Your task to perform on an android device: turn off location history Image 0: 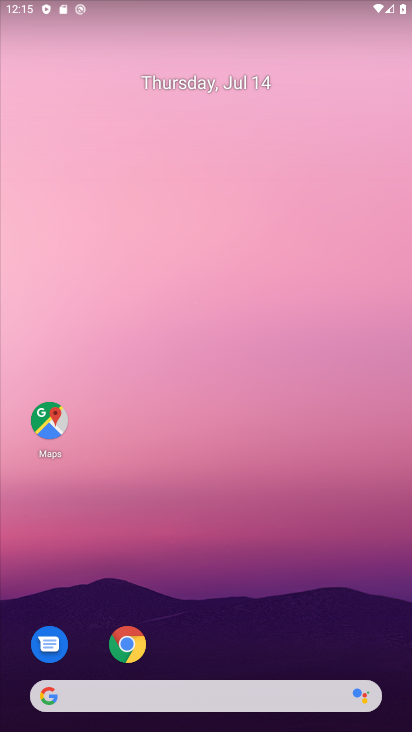
Step 0: drag from (222, 680) to (194, 314)
Your task to perform on an android device: turn off location history Image 1: 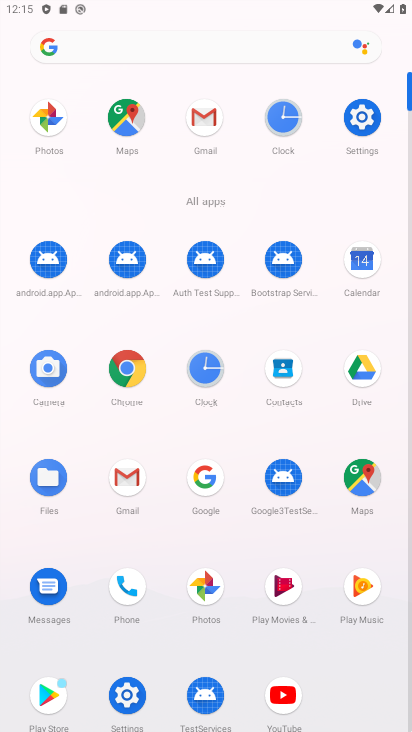
Step 1: click (353, 139)
Your task to perform on an android device: turn off location history Image 2: 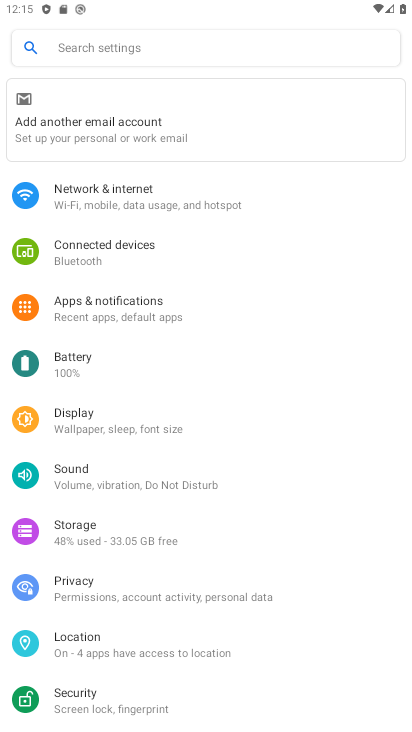
Step 2: click (121, 644)
Your task to perform on an android device: turn off location history Image 3: 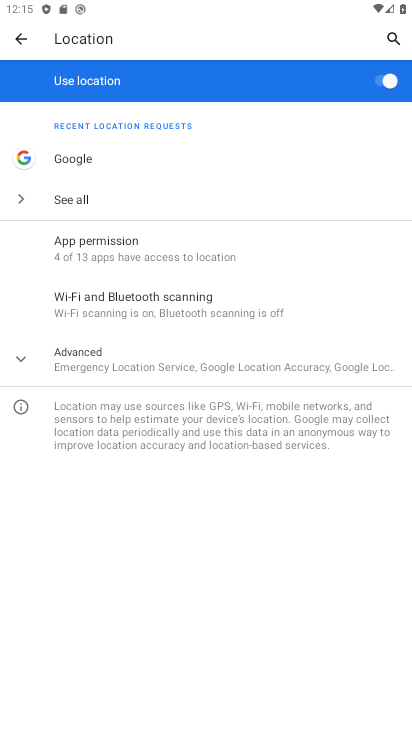
Step 3: click (81, 369)
Your task to perform on an android device: turn off location history Image 4: 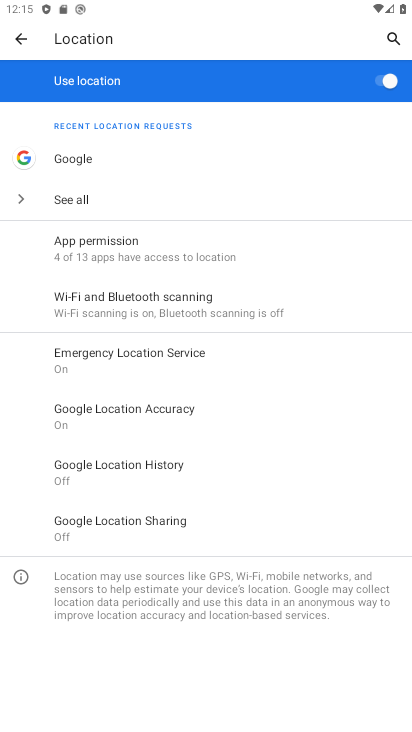
Step 4: click (139, 470)
Your task to perform on an android device: turn off location history Image 5: 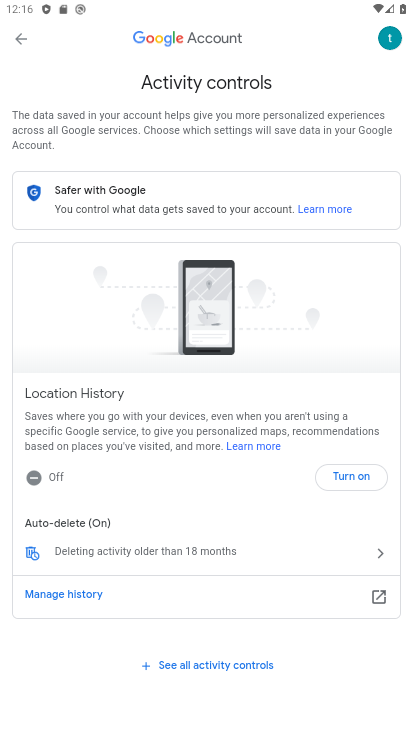
Step 5: drag from (113, 520) to (100, 314)
Your task to perform on an android device: turn off location history Image 6: 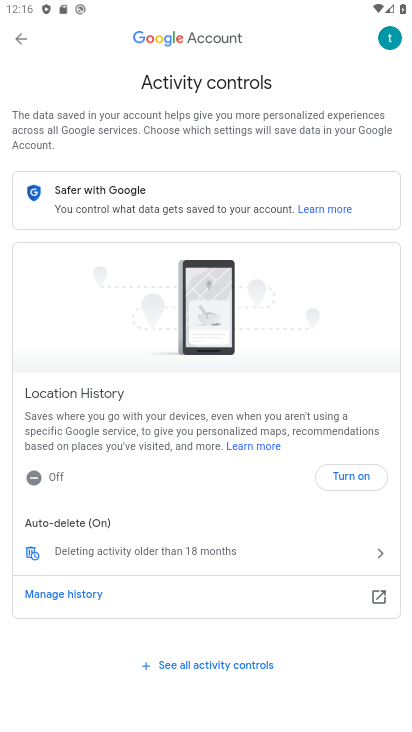
Step 6: drag from (139, 564) to (116, 385)
Your task to perform on an android device: turn off location history Image 7: 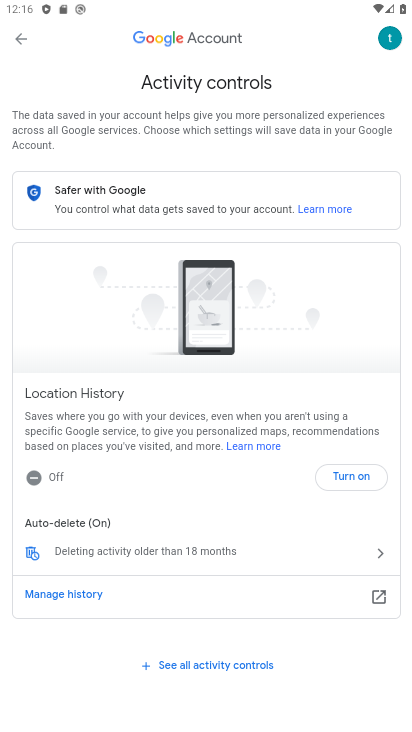
Step 7: click (62, 480)
Your task to perform on an android device: turn off location history Image 8: 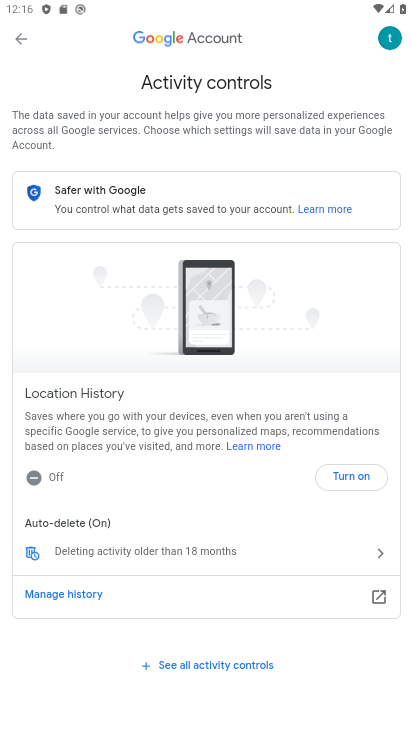
Step 8: task complete